Your task to perform on an android device: change timer sound Image 0: 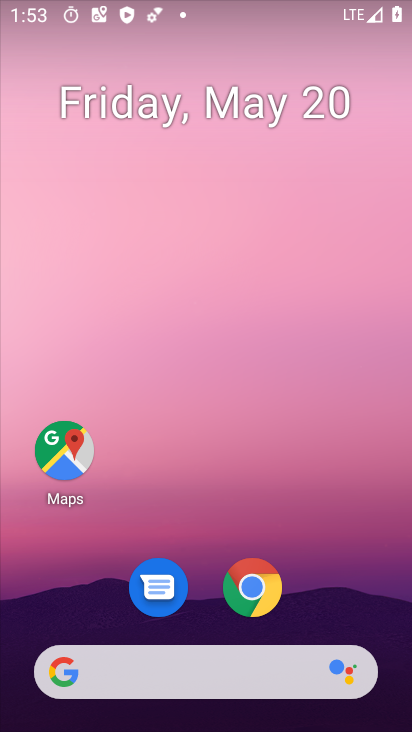
Step 0: drag from (342, 551) to (278, 119)
Your task to perform on an android device: change timer sound Image 1: 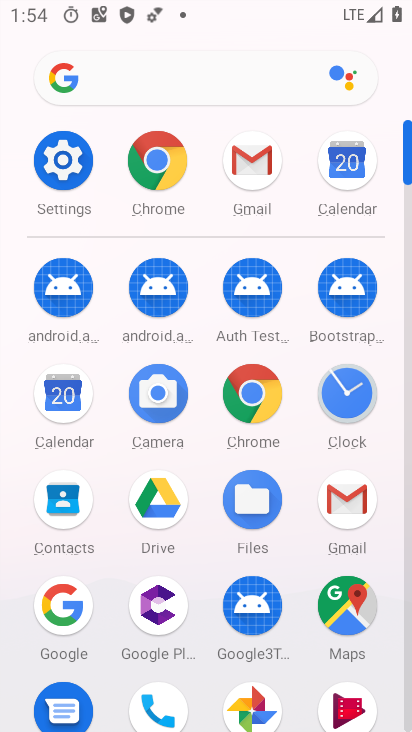
Step 1: click (64, 171)
Your task to perform on an android device: change timer sound Image 2: 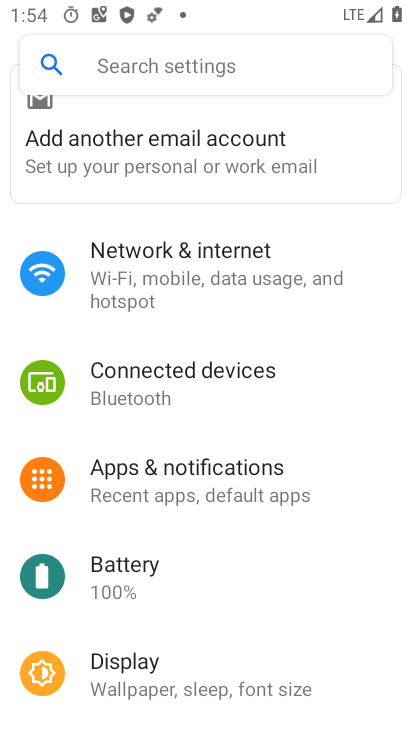
Step 2: press home button
Your task to perform on an android device: change timer sound Image 3: 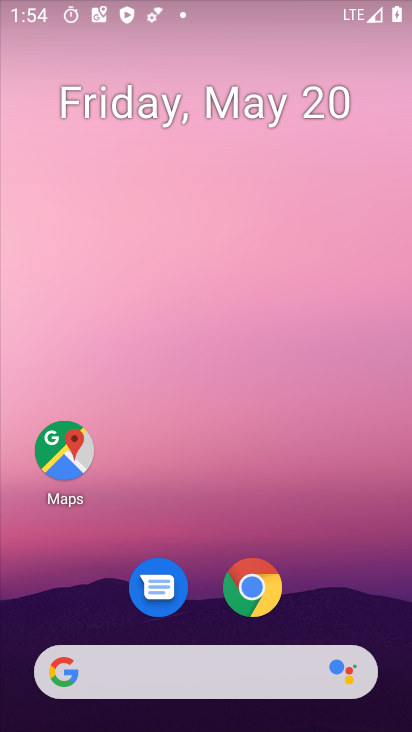
Step 3: drag from (311, 505) to (258, 57)
Your task to perform on an android device: change timer sound Image 4: 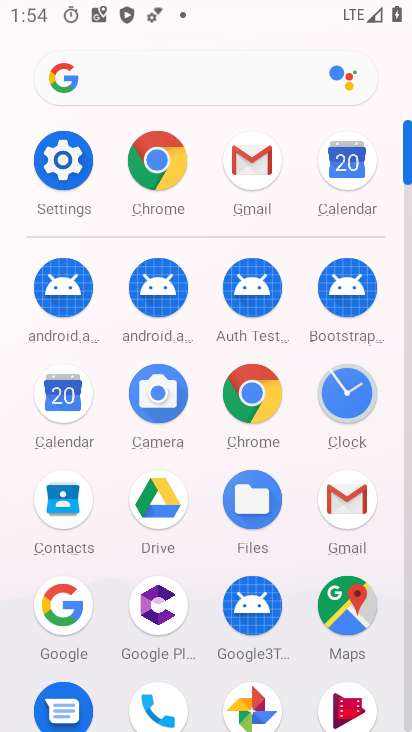
Step 4: click (351, 398)
Your task to perform on an android device: change timer sound Image 5: 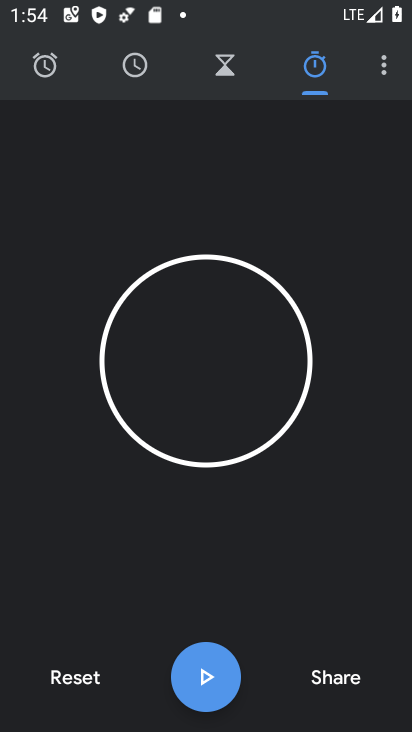
Step 5: click (387, 66)
Your task to perform on an android device: change timer sound Image 6: 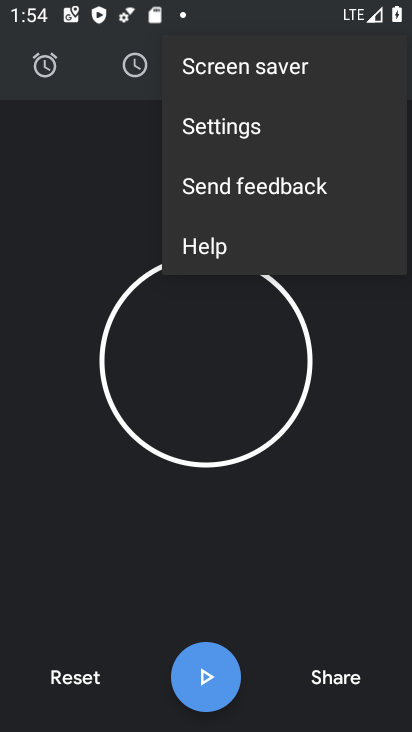
Step 6: click (253, 146)
Your task to perform on an android device: change timer sound Image 7: 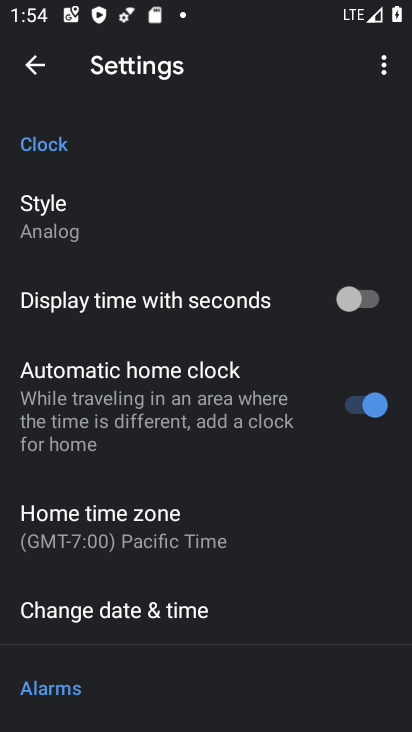
Step 7: drag from (207, 657) to (292, 287)
Your task to perform on an android device: change timer sound Image 8: 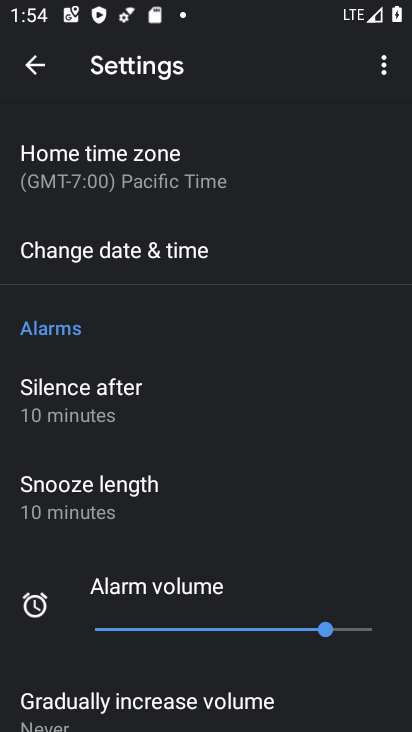
Step 8: drag from (233, 646) to (289, 205)
Your task to perform on an android device: change timer sound Image 9: 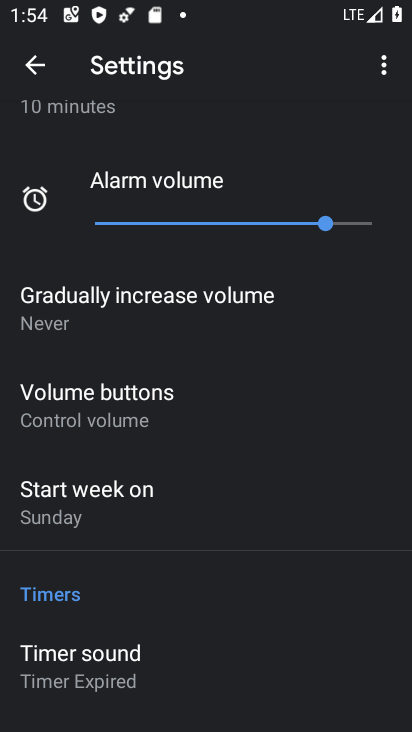
Step 9: click (113, 649)
Your task to perform on an android device: change timer sound Image 10: 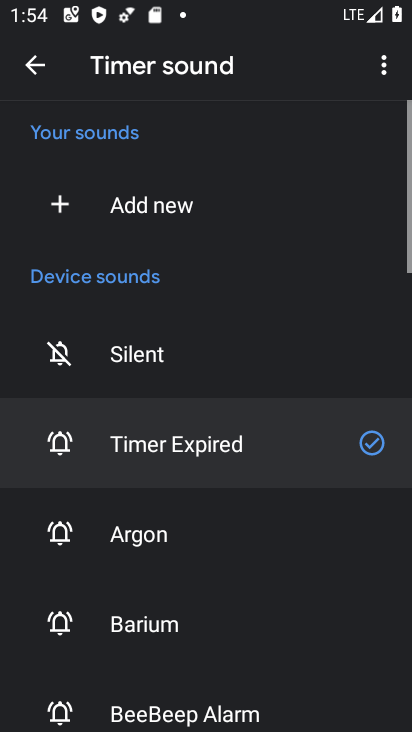
Step 10: click (137, 530)
Your task to perform on an android device: change timer sound Image 11: 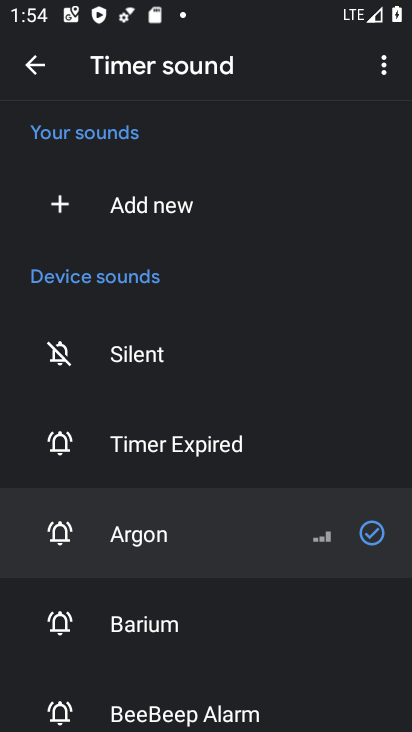
Step 11: task complete